Your task to perform on an android device: turn off notifications in google photos Image 0: 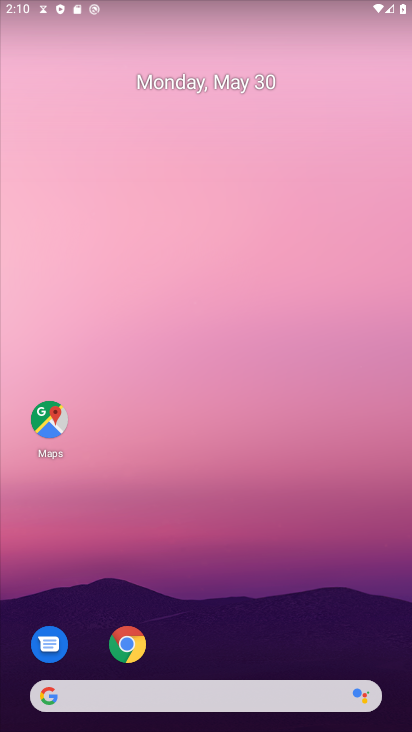
Step 0: drag from (273, 580) to (268, 18)
Your task to perform on an android device: turn off notifications in google photos Image 1: 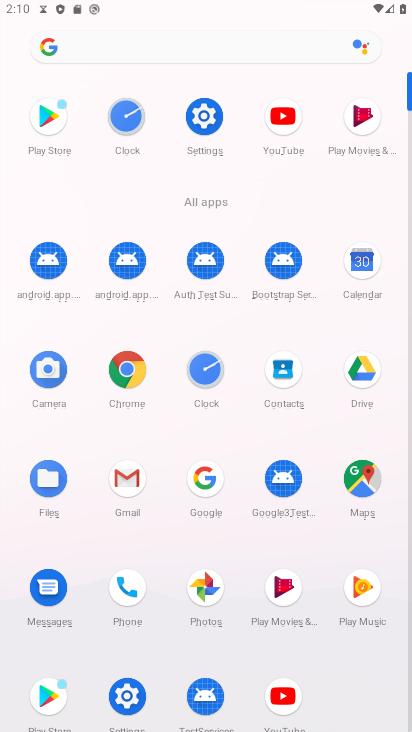
Step 1: click (204, 588)
Your task to perform on an android device: turn off notifications in google photos Image 2: 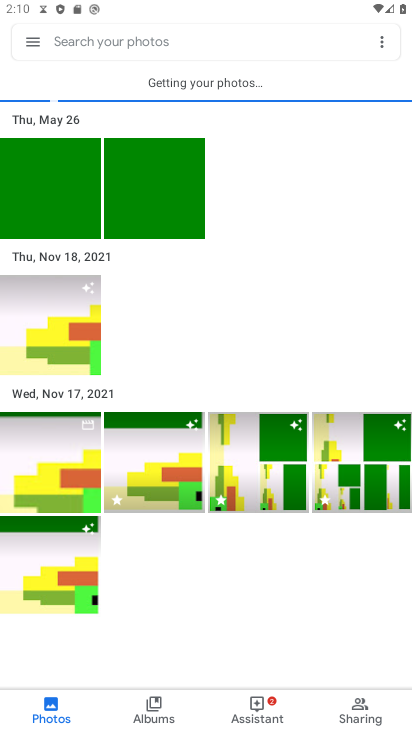
Step 2: click (25, 44)
Your task to perform on an android device: turn off notifications in google photos Image 3: 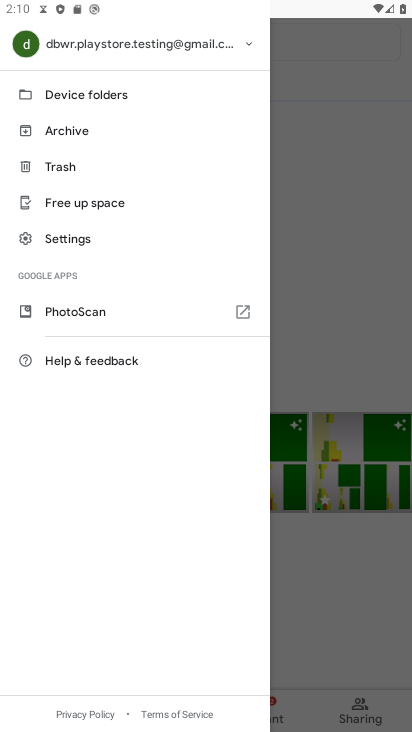
Step 3: click (86, 247)
Your task to perform on an android device: turn off notifications in google photos Image 4: 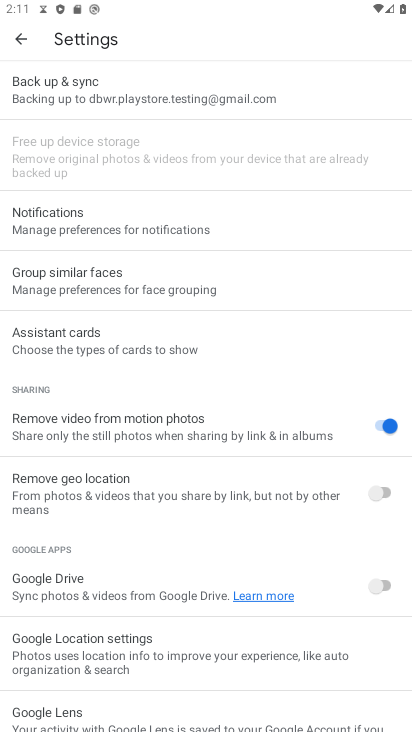
Step 4: click (83, 227)
Your task to perform on an android device: turn off notifications in google photos Image 5: 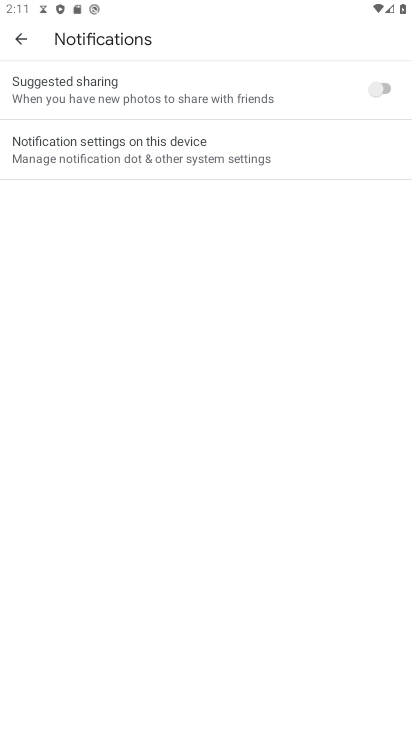
Step 5: click (159, 162)
Your task to perform on an android device: turn off notifications in google photos Image 6: 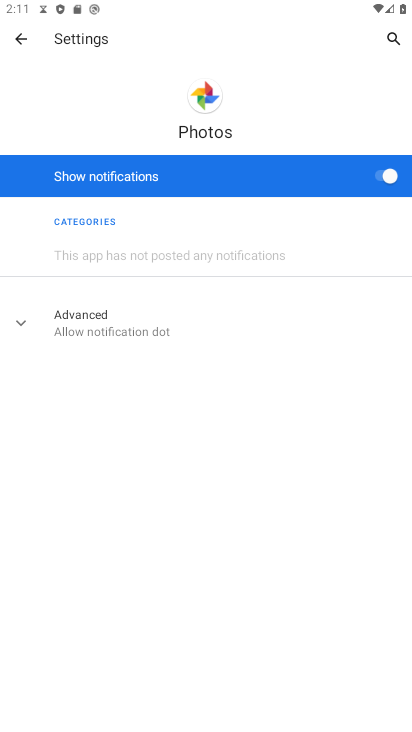
Step 6: click (379, 175)
Your task to perform on an android device: turn off notifications in google photos Image 7: 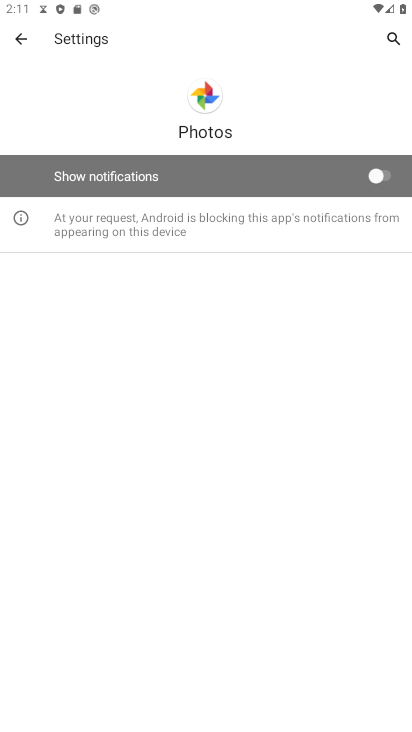
Step 7: task complete